Your task to perform on an android device: Open my contact list Image 0: 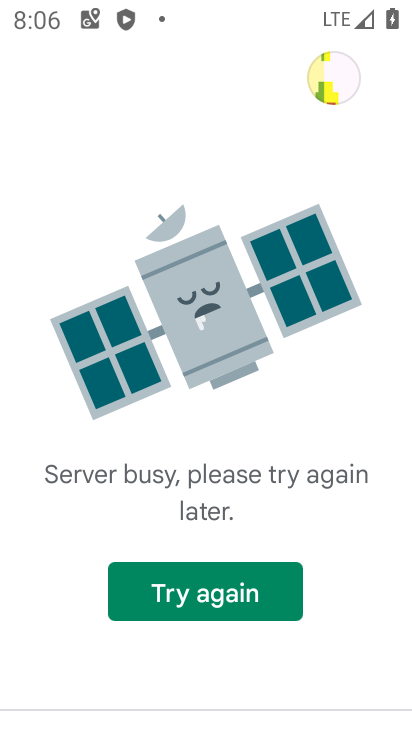
Step 0: press back button
Your task to perform on an android device: Open my contact list Image 1: 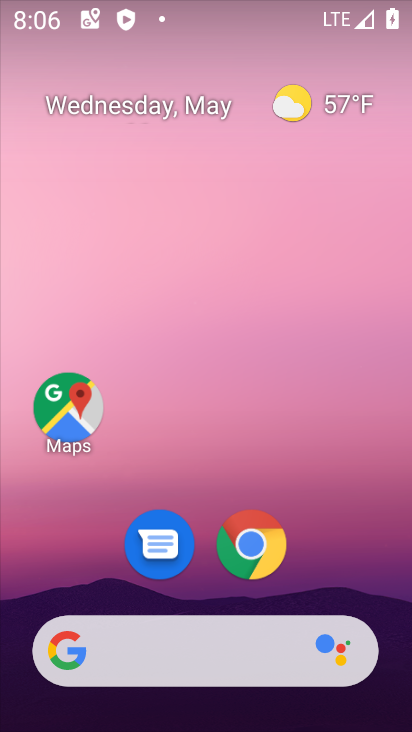
Step 1: drag from (336, 535) to (252, 15)
Your task to perform on an android device: Open my contact list Image 2: 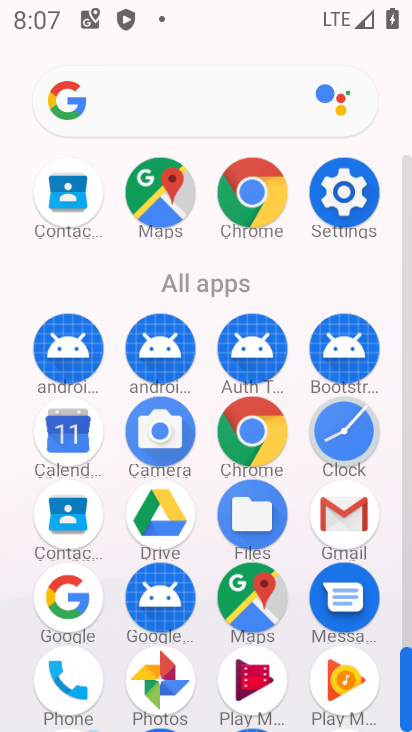
Step 2: drag from (17, 570) to (8, 137)
Your task to perform on an android device: Open my contact list Image 3: 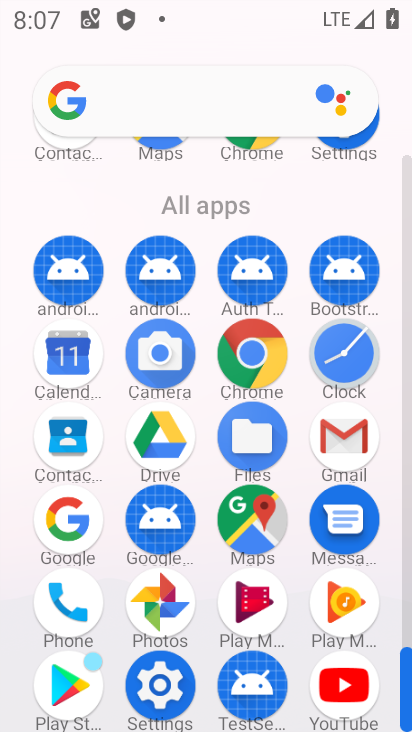
Step 3: click (68, 439)
Your task to perform on an android device: Open my contact list Image 4: 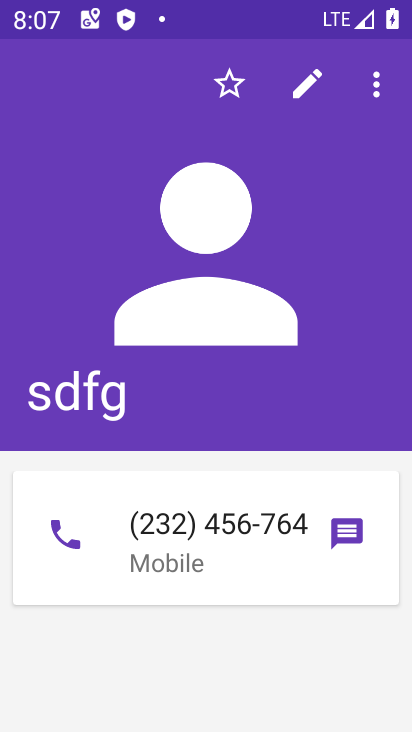
Step 4: task complete